Your task to perform on an android device: set the timer Image 0: 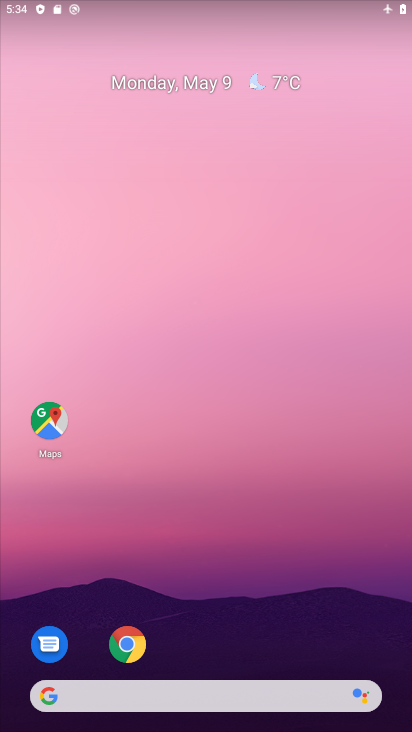
Step 0: drag from (224, 622) to (233, 65)
Your task to perform on an android device: set the timer Image 1: 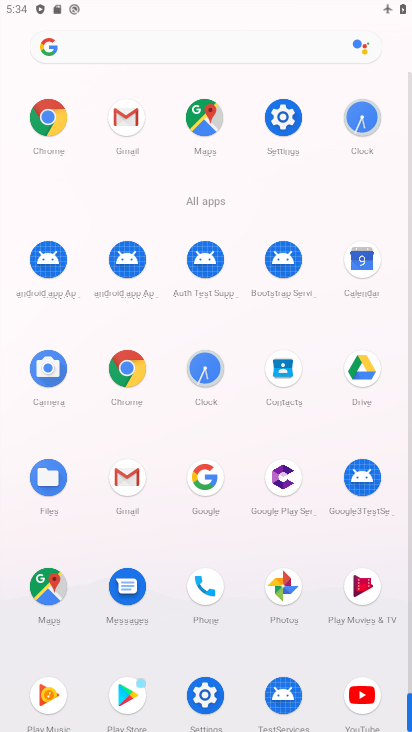
Step 1: click (361, 115)
Your task to perform on an android device: set the timer Image 2: 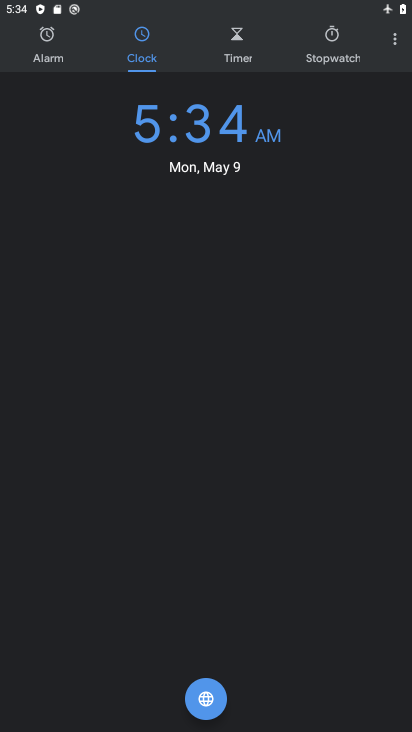
Step 2: click (239, 39)
Your task to perform on an android device: set the timer Image 3: 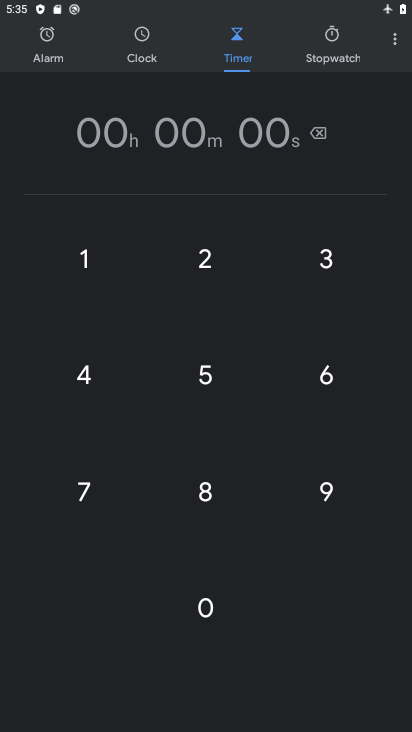
Step 3: click (212, 322)
Your task to perform on an android device: set the timer Image 4: 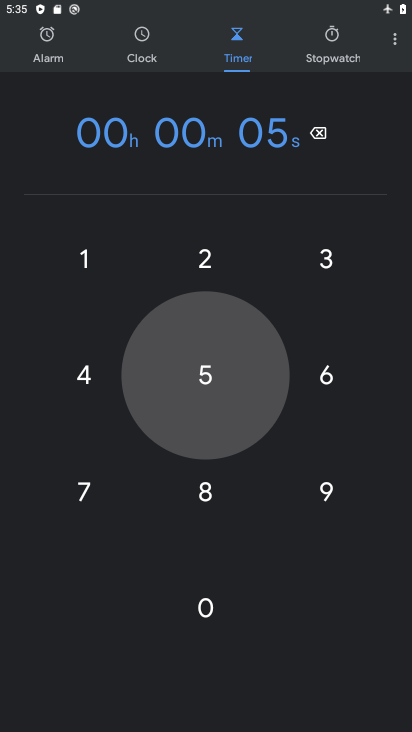
Step 4: click (214, 368)
Your task to perform on an android device: set the timer Image 5: 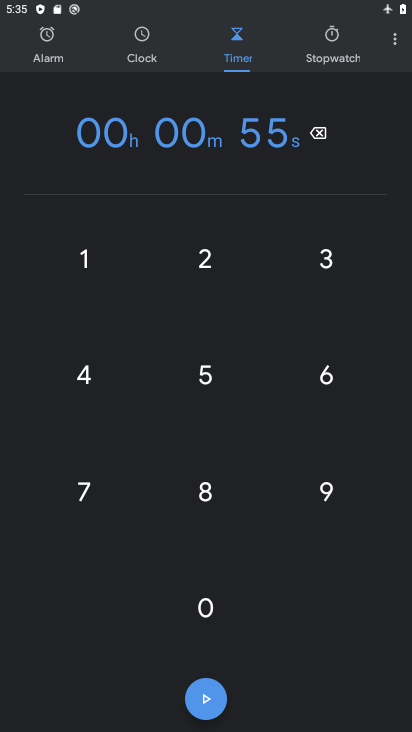
Step 5: click (318, 284)
Your task to perform on an android device: set the timer Image 6: 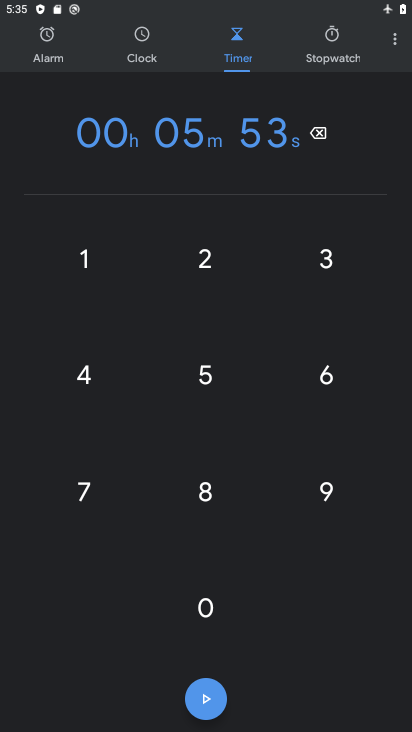
Step 6: click (311, 401)
Your task to perform on an android device: set the timer Image 7: 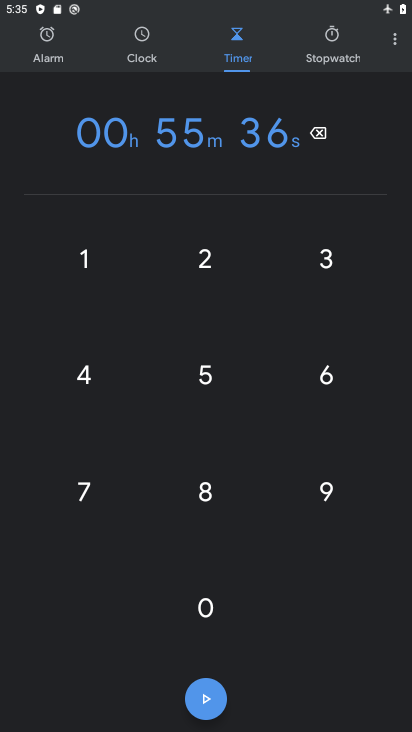
Step 7: click (191, 500)
Your task to perform on an android device: set the timer Image 8: 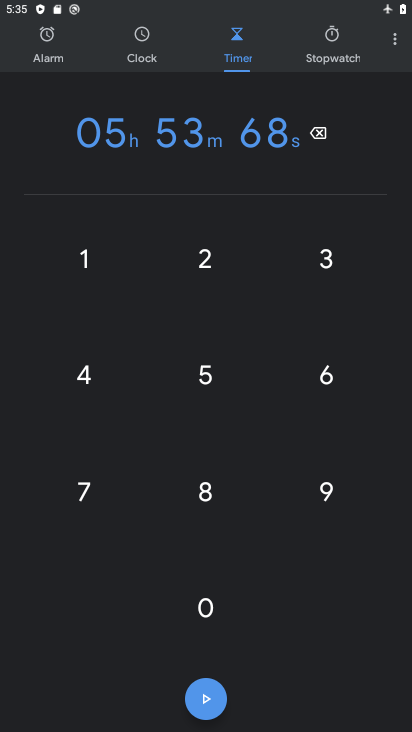
Step 8: task complete